Your task to perform on an android device: Open Google Maps Image 0: 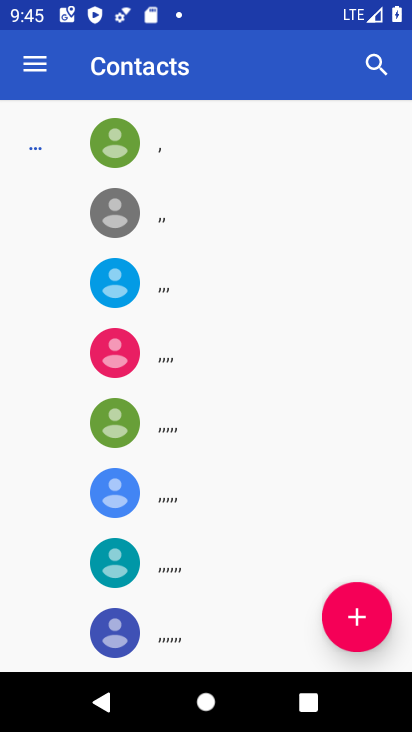
Step 0: press home button
Your task to perform on an android device: Open Google Maps Image 1: 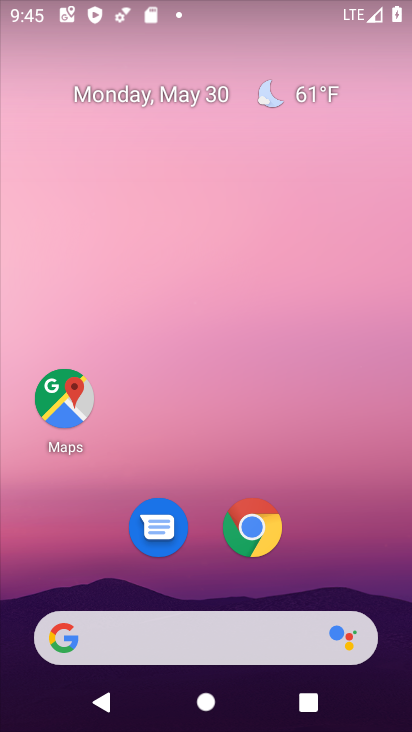
Step 1: click (61, 399)
Your task to perform on an android device: Open Google Maps Image 2: 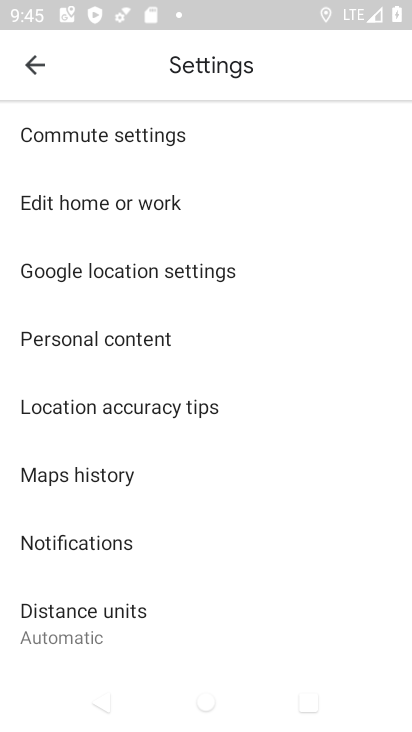
Step 2: click (41, 72)
Your task to perform on an android device: Open Google Maps Image 3: 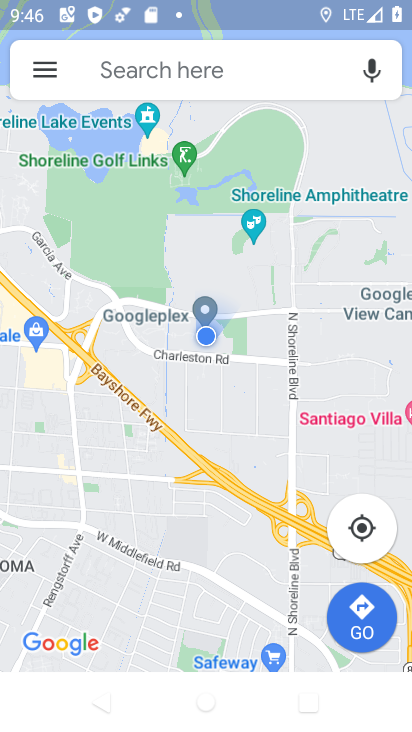
Step 3: task complete